Your task to perform on an android device: turn vacation reply on in the gmail app Image 0: 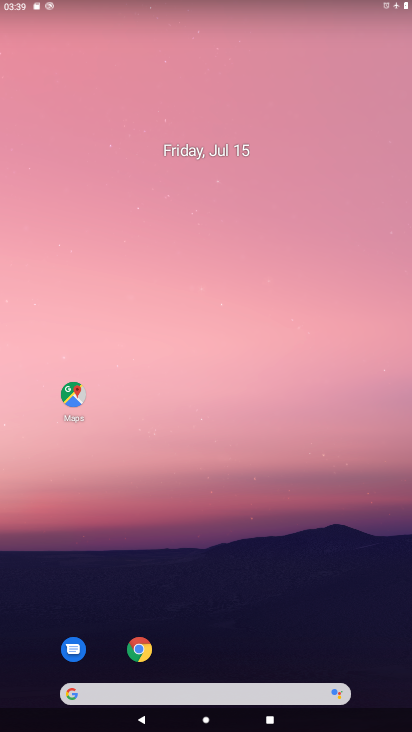
Step 0: drag from (379, 669) to (330, 69)
Your task to perform on an android device: turn vacation reply on in the gmail app Image 1: 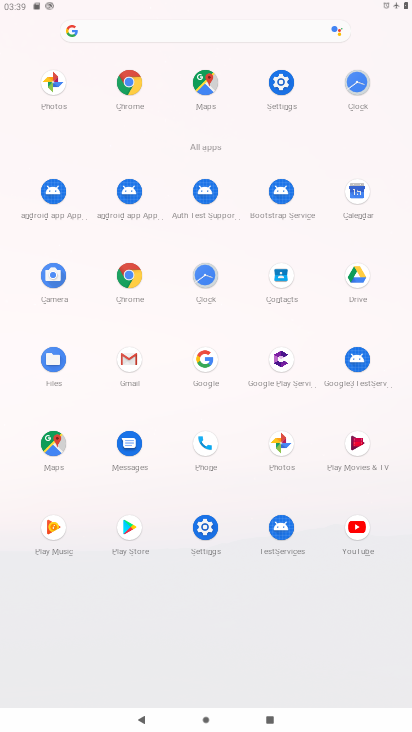
Step 1: click (126, 358)
Your task to perform on an android device: turn vacation reply on in the gmail app Image 2: 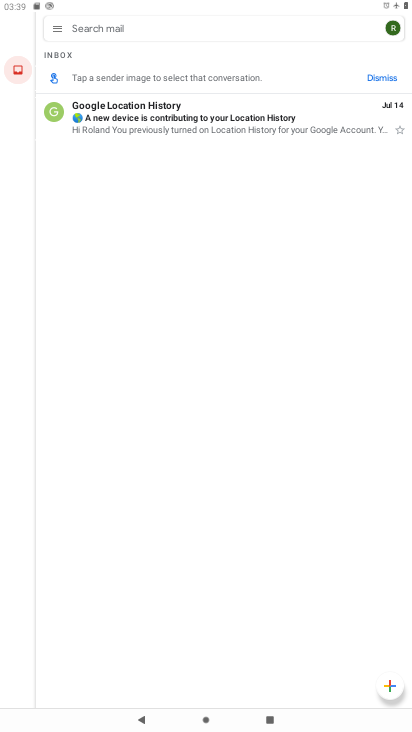
Step 2: click (54, 29)
Your task to perform on an android device: turn vacation reply on in the gmail app Image 3: 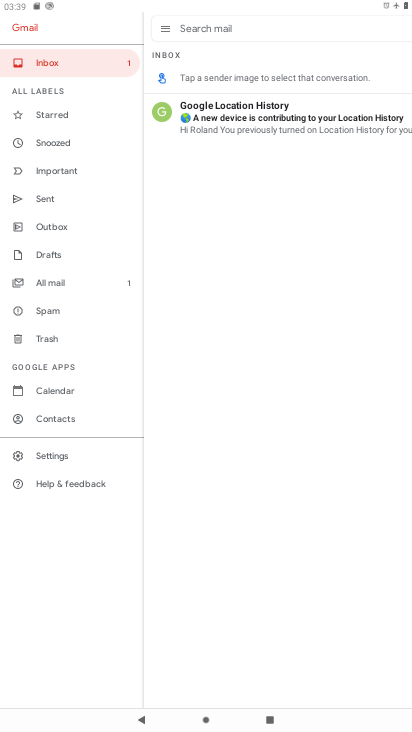
Step 3: click (50, 442)
Your task to perform on an android device: turn vacation reply on in the gmail app Image 4: 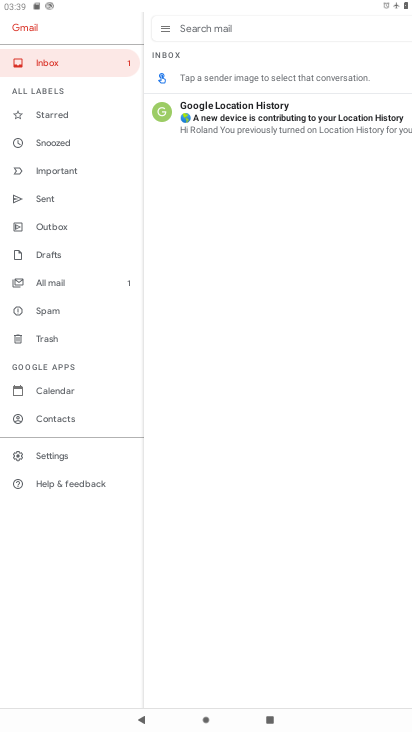
Step 4: click (51, 452)
Your task to perform on an android device: turn vacation reply on in the gmail app Image 5: 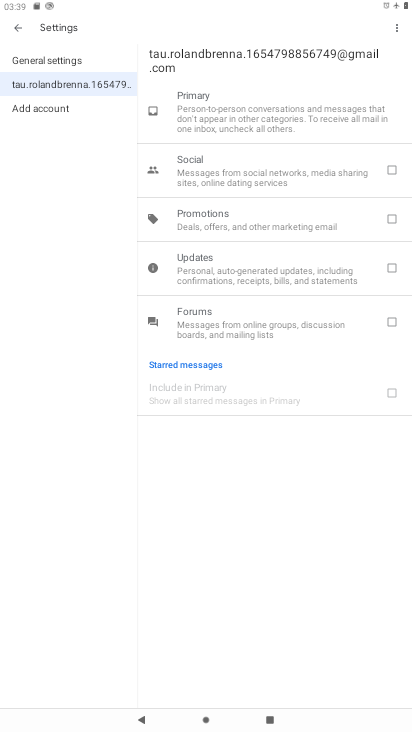
Step 5: press back button
Your task to perform on an android device: turn vacation reply on in the gmail app Image 6: 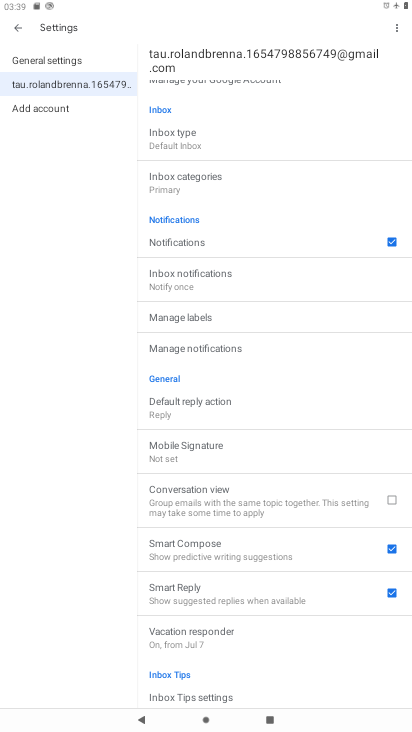
Step 6: drag from (261, 635) to (249, 360)
Your task to perform on an android device: turn vacation reply on in the gmail app Image 7: 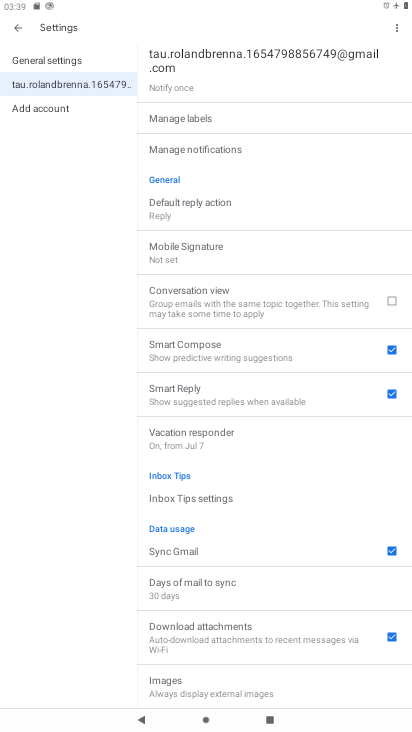
Step 7: click (194, 426)
Your task to perform on an android device: turn vacation reply on in the gmail app Image 8: 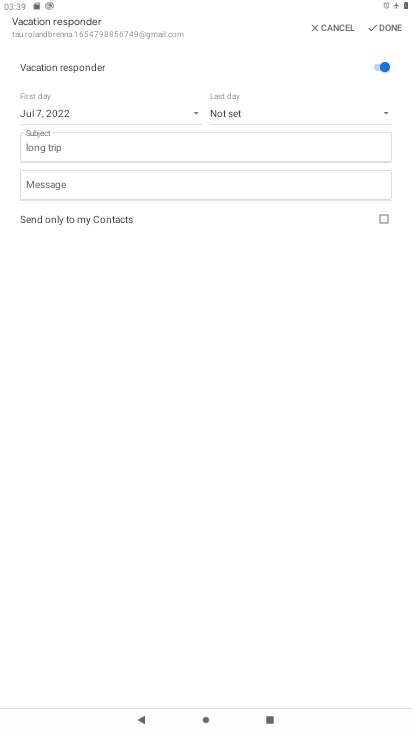
Step 8: click (386, 27)
Your task to perform on an android device: turn vacation reply on in the gmail app Image 9: 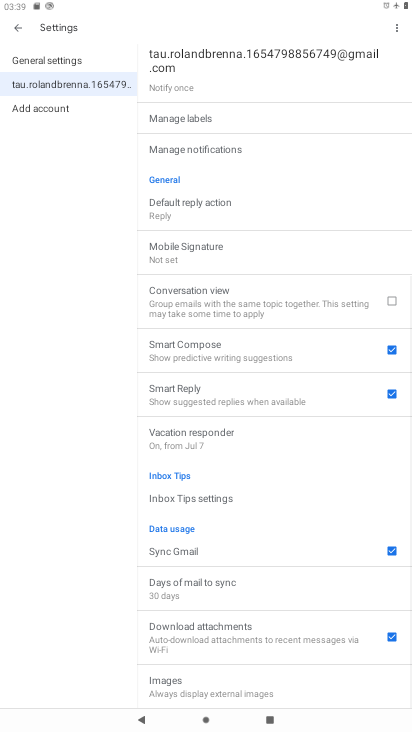
Step 9: task complete